Your task to perform on an android device: add a label to a message in the gmail app Image 0: 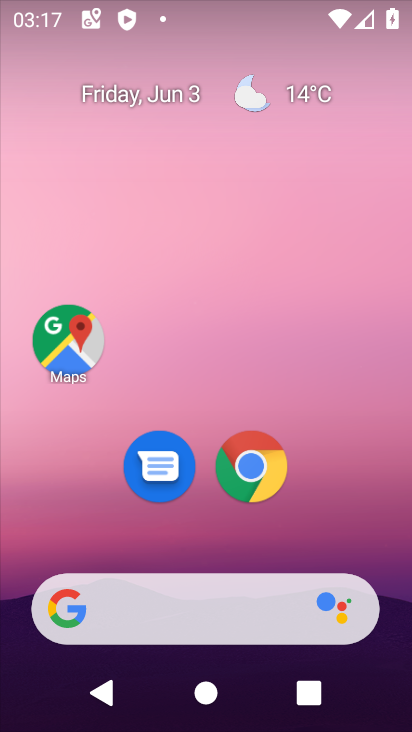
Step 0: press home button
Your task to perform on an android device: add a label to a message in the gmail app Image 1: 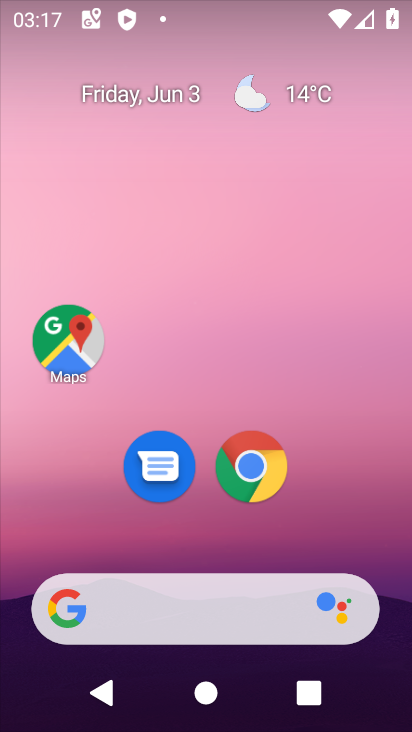
Step 1: drag from (204, 548) to (254, 9)
Your task to perform on an android device: add a label to a message in the gmail app Image 2: 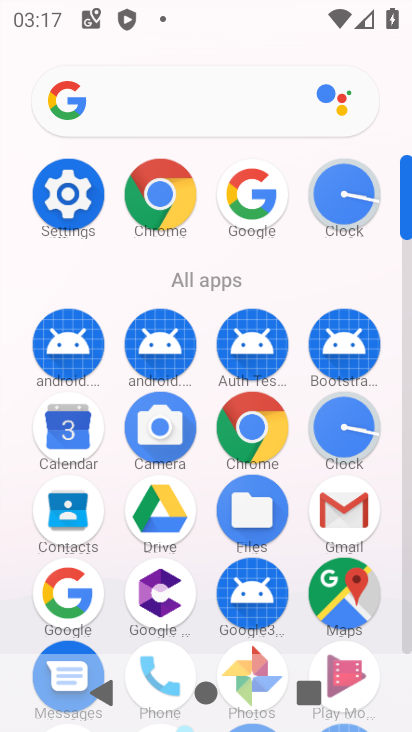
Step 2: click (334, 497)
Your task to perform on an android device: add a label to a message in the gmail app Image 3: 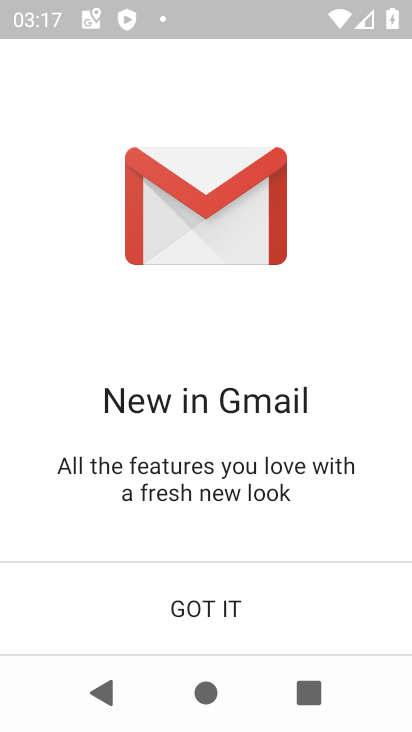
Step 3: click (213, 619)
Your task to perform on an android device: add a label to a message in the gmail app Image 4: 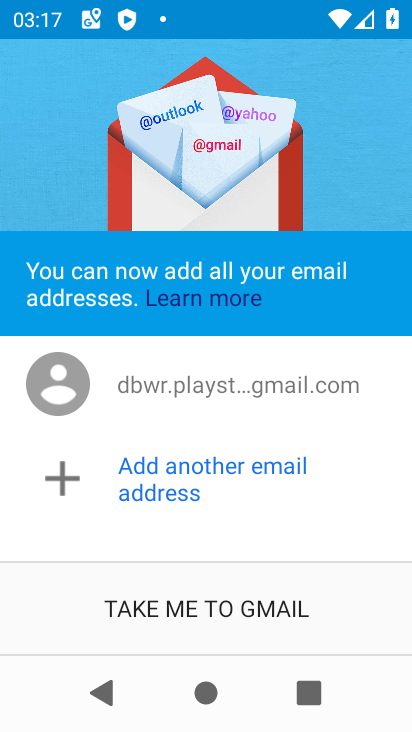
Step 4: click (198, 621)
Your task to perform on an android device: add a label to a message in the gmail app Image 5: 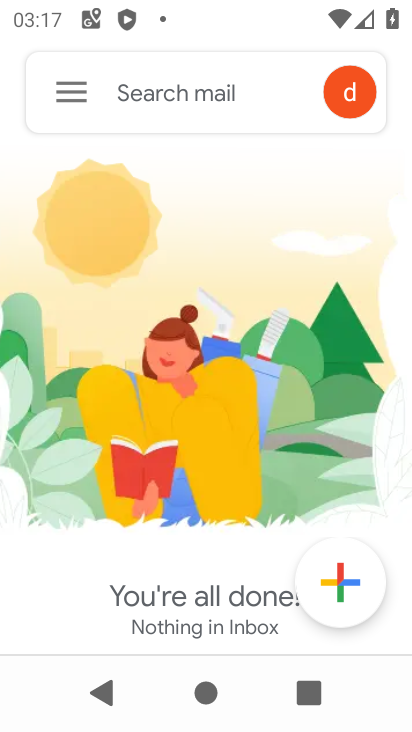
Step 5: task complete